Your task to perform on an android device: add a label to a message in the gmail app Image 0: 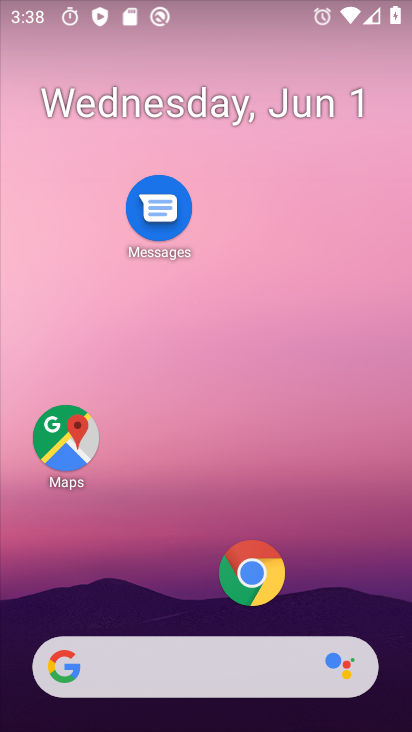
Step 0: drag from (189, 602) to (169, 251)
Your task to perform on an android device: add a label to a message in the gmail app Image 1: 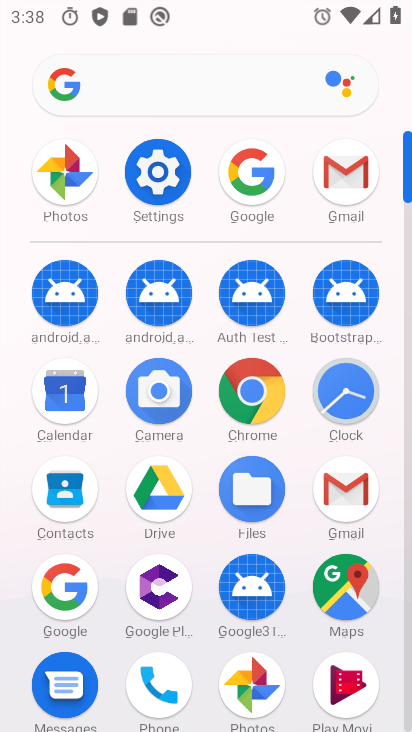
Step 1: click (341, 194)
Your task to perform on an android device: add a label to a message in the gmail app Image 2: 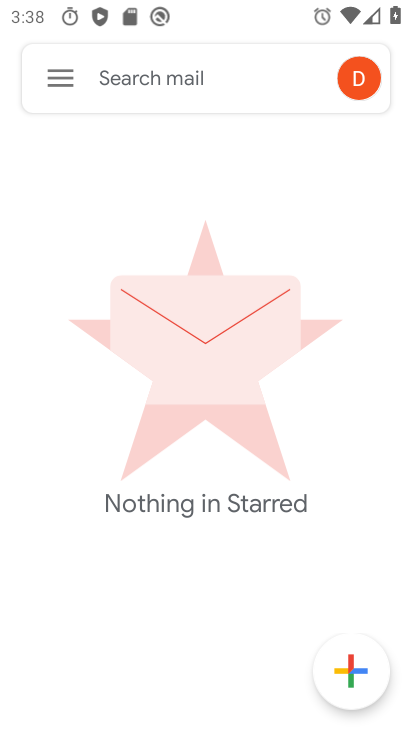
Step 2: click (54, 81)
Your task to perform on an android device: add a label to a message in the gmail app Image 3: 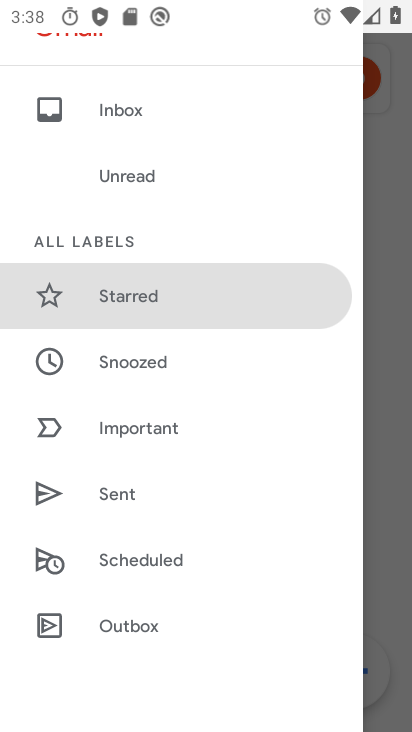
Step 3: drag from (167, 617) to (209, 315)
Your task to perform on an android device: add a label to a message in the gmail app Image 4: 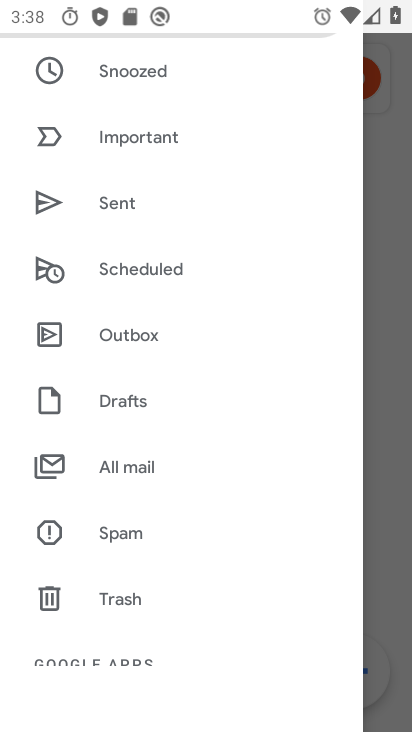
Step 4: click (149, 469)
Your task to perform on an android device: add a label to a message in the gmail app Image 5: 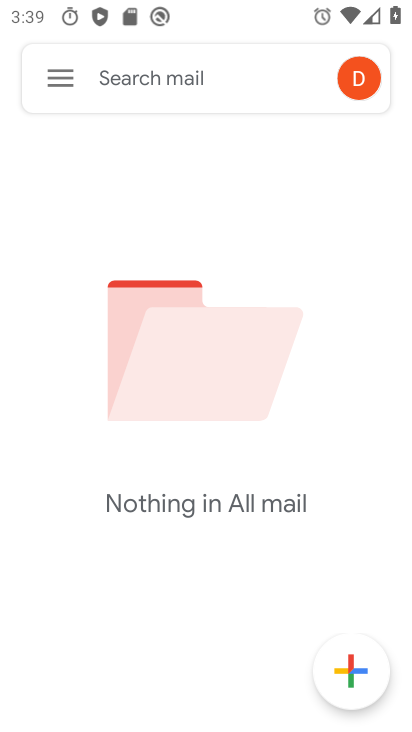
Step 5: task complete